Your task to perform on an android device: change the clock display to digital Image 0: 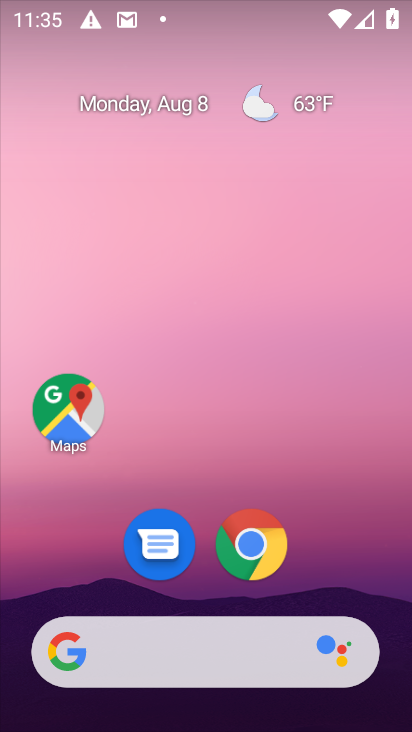
Step 0: drag from (200, 667) to (246, 92)
Your task to perform on an android device: change the clock display to digital Image 1: 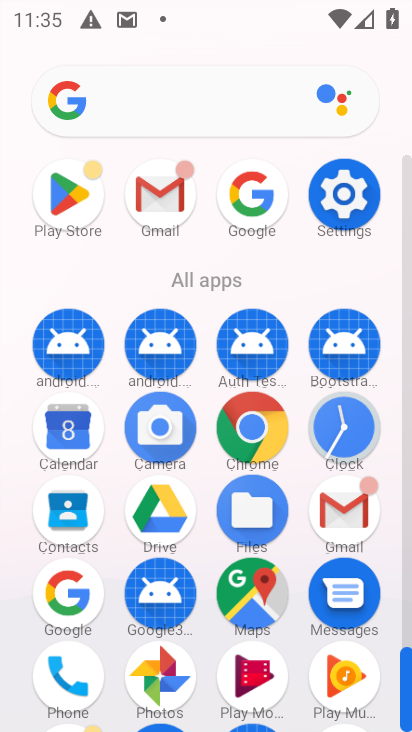
Step 1: click (345, 425)
Your task to perform on an android device: change the clock display to digital Image 2: 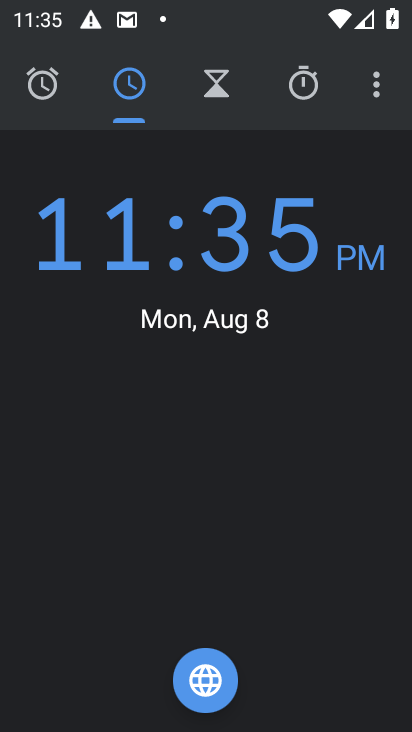
Step 2: click (376, 78)
Your task to perform on an android device: change the clock display to digital Image 3: 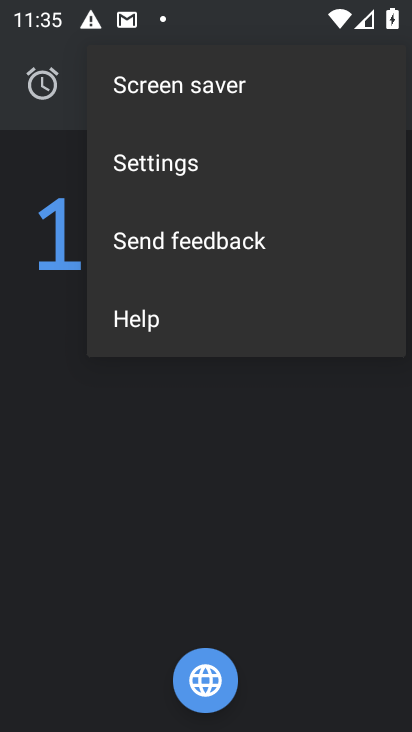
Step 3: click (164, 164)
Your task to perform on an android device: change the clock display to digital Image 4: 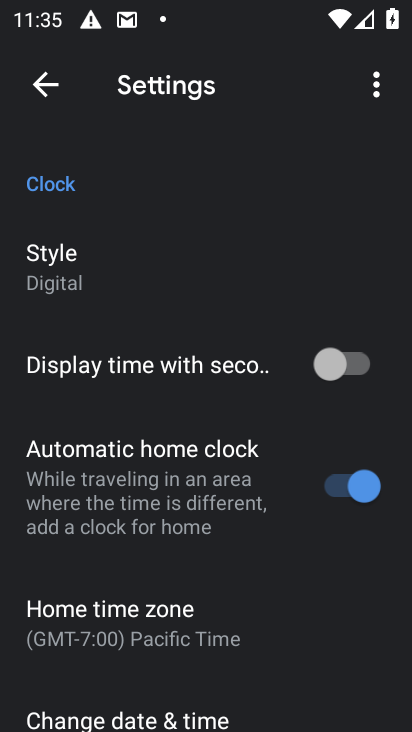
Step 4: click (83, 257)
Your task to perform on an android device: change the clock display to digital Image 5: 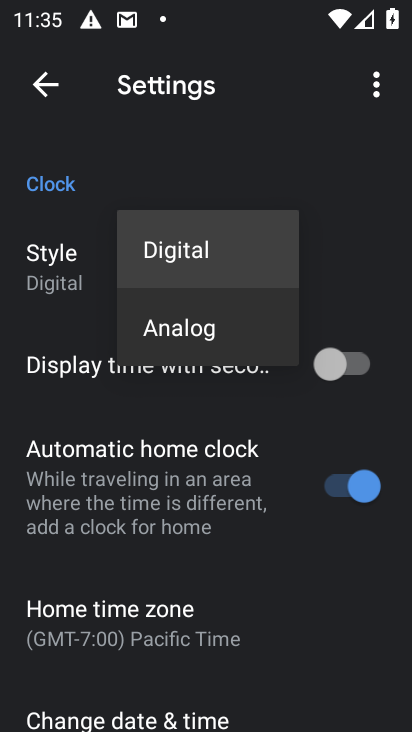
Step 5: click (170, 258)
Your task to perform on an android device: change the clock display to digital Image 6: 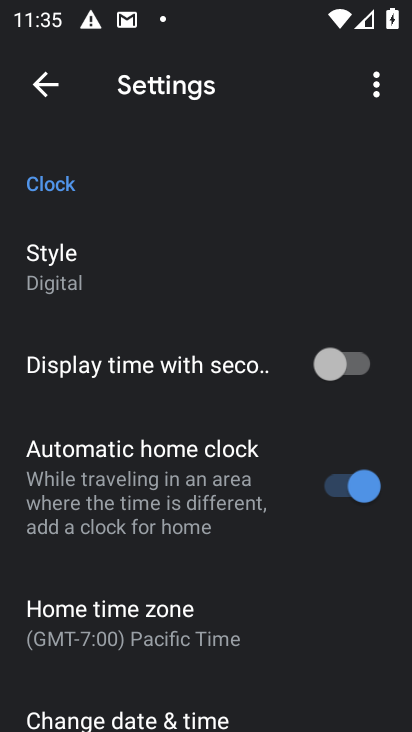
Step 6: task complete